Your task to perform on an android device: open sync settings in chrome Image 0: 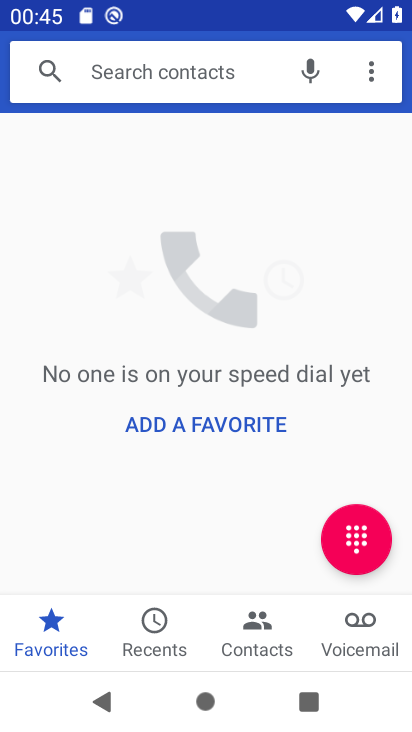
Step 0: press home button
Your task to perform on an android device: open sync settings in chrome Image 1: 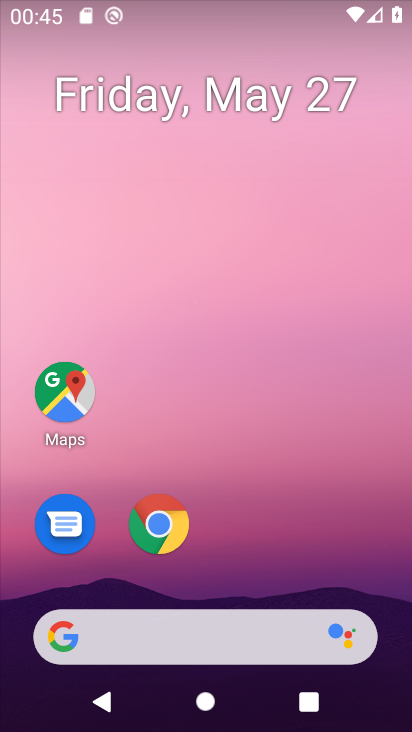
Step 1: click (169, 525)
Your task to perform on an android device: open sync settings in chrome Image 2: 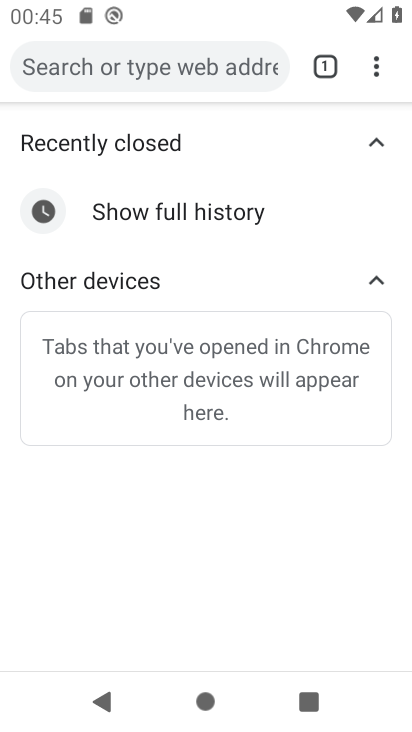
Step 2: click (370, 65)
Your task to perform on an android device: open sync settings in chrome Image 3: 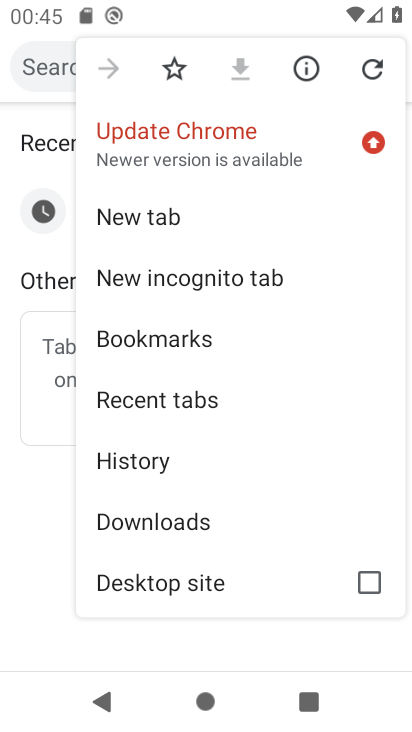
Step 3: drag from (259, 465) to (287, 166)
Your task to perform on an android device: open sync settings in chrome Image 4: 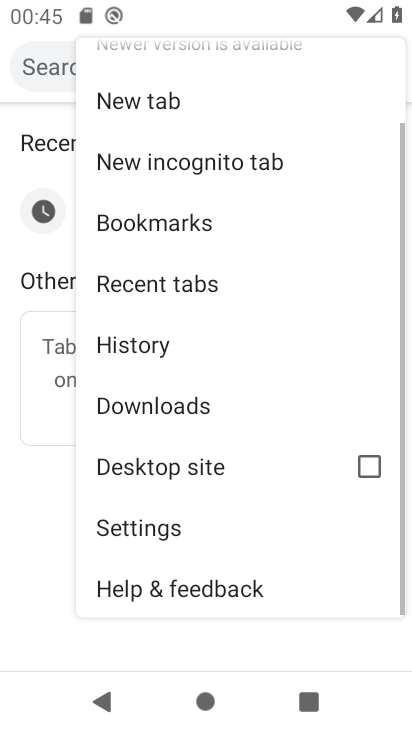
Step 4: click (157, 531)
Your task to perform on an android device: open sync settings in chrome Image 5: 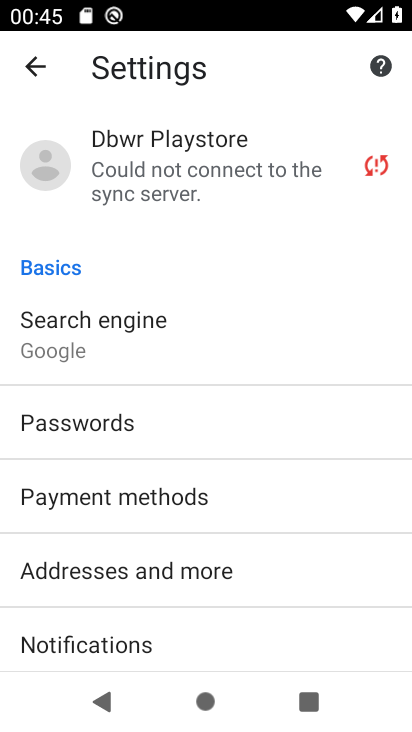
Step 5: click (203, 176)
Your task to perform on an android device: open sync settings in chrome Image 6: 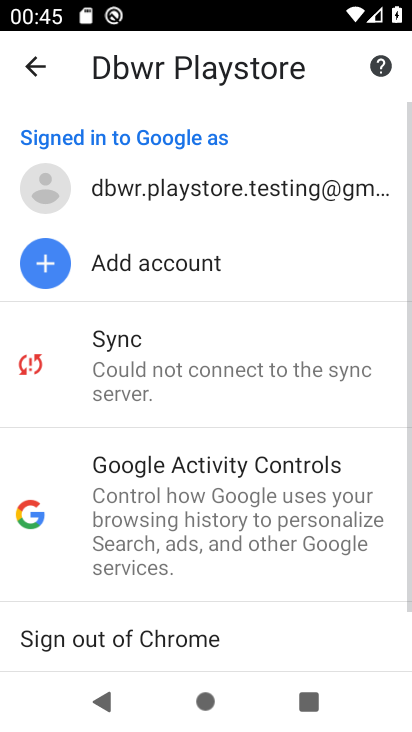
Step 6: click (162, 356)
Your task to perform on an android device: open sync settings in chrome Image 7: 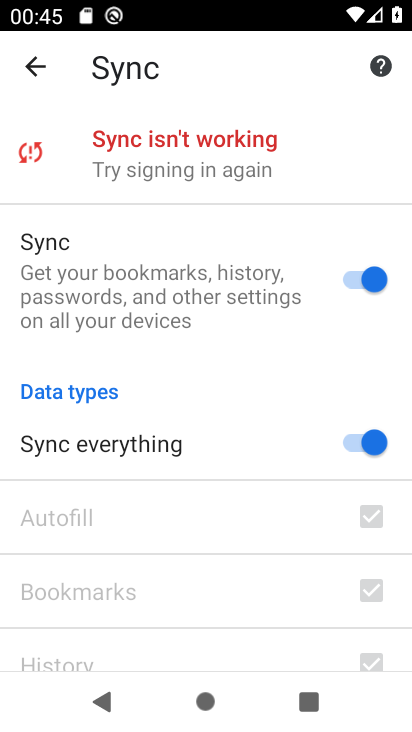
Step 7: task complete